Your task to perform on an android device: turn on location history Image 0: 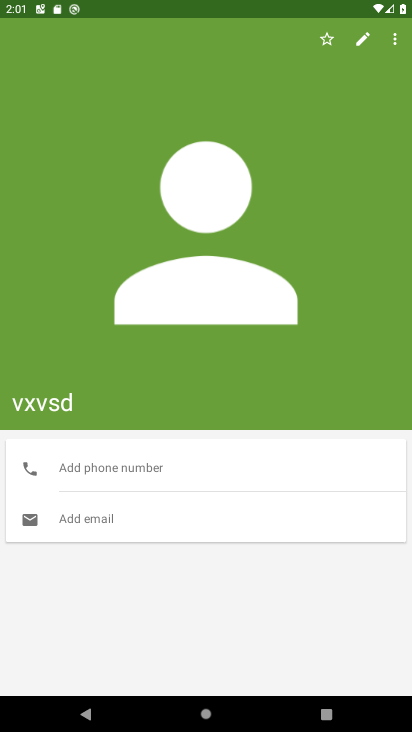
Step 0: press home button
Your task to perform on an android device: turn on location history Image 1: 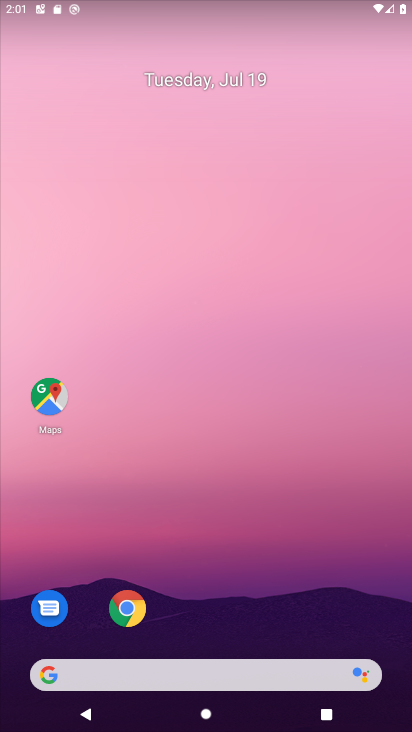
Step 1: drag from (225, 577) to (328, 91)
Your task to perform on an android device: turn on location history Image 2: 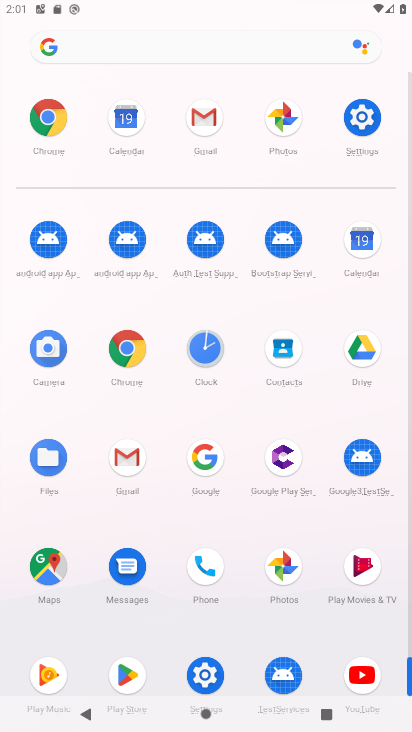
Step 2: click (203, 678)
Your task to perform on an android device: turn on location history Image 3: 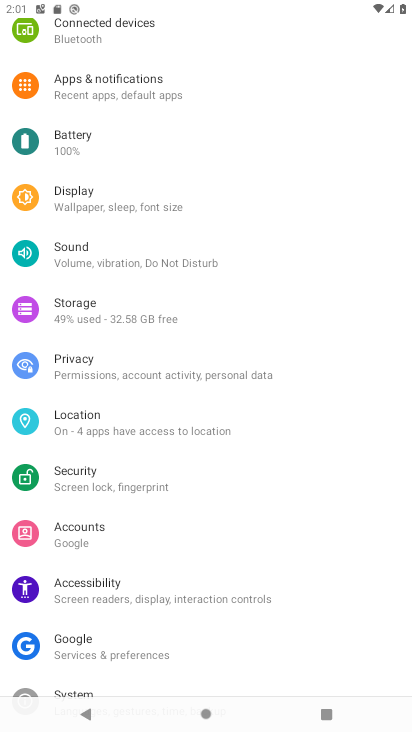
Step 3: click (91, 430)
Your task to perform on an android device: turn on location history Image 4: 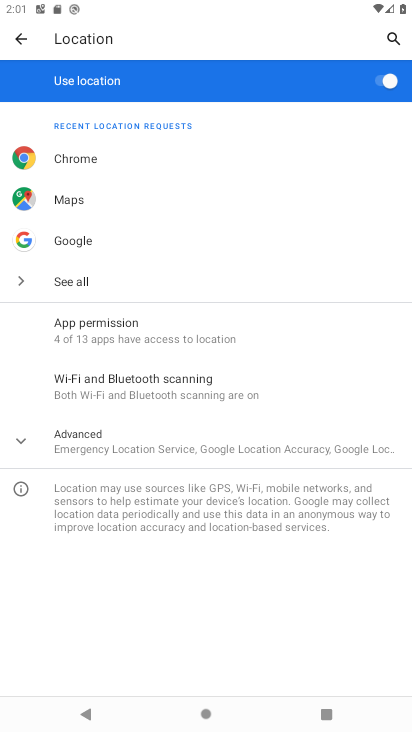
Step 4: click (87, 444)
Your task to perform on an android device: turn on location history Image 5: 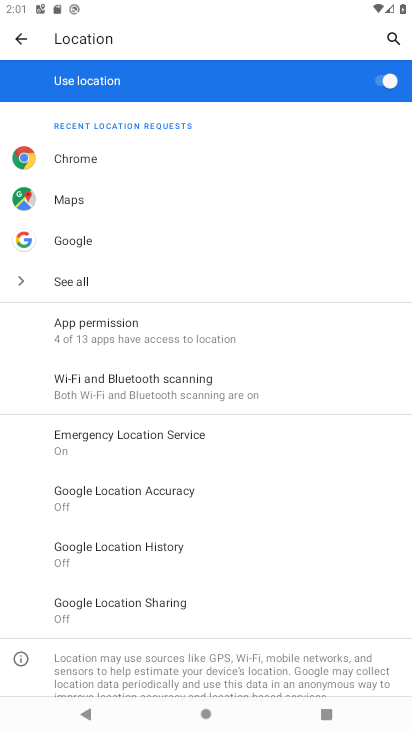
Step 5: click (128, 559)
Your task to perform on an android device: turn on location history Image 6: 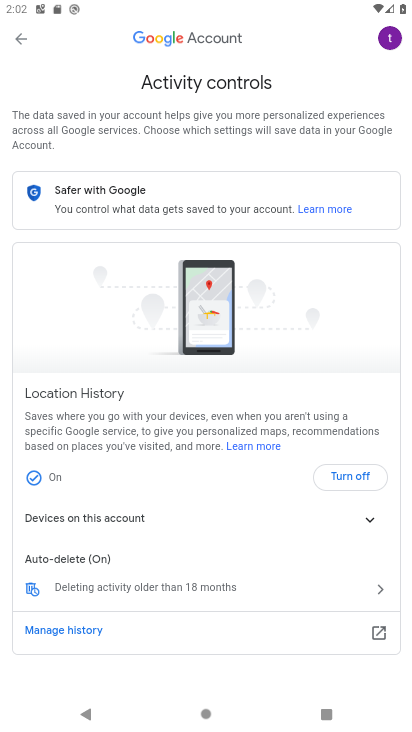
Step 6: click (346, 475)
Your task to perform on an android device: turn on location history Image 7: 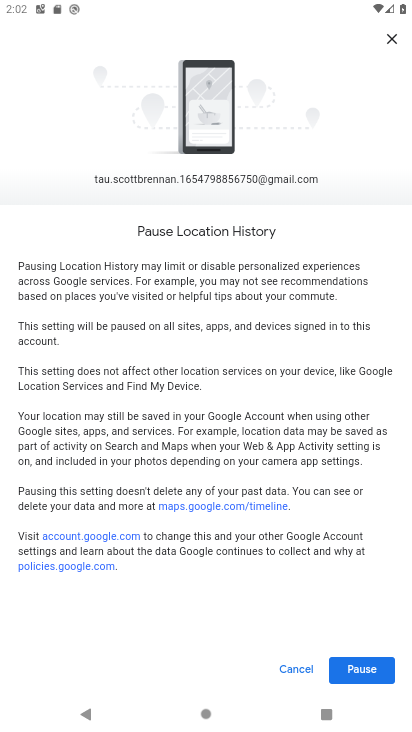
Step 7: drag from (323, 602) to (305, 281)
Your task to perform on an android device: turn on location history Image 8: 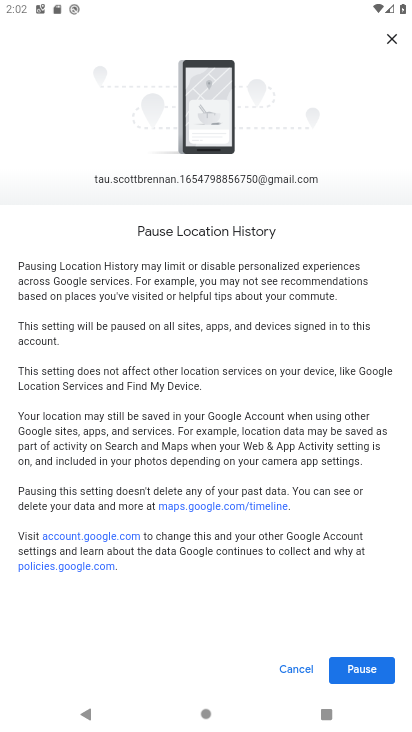
Step 8: click (365, 672)
Your task to perform on an android device: turn on location history Image 9: 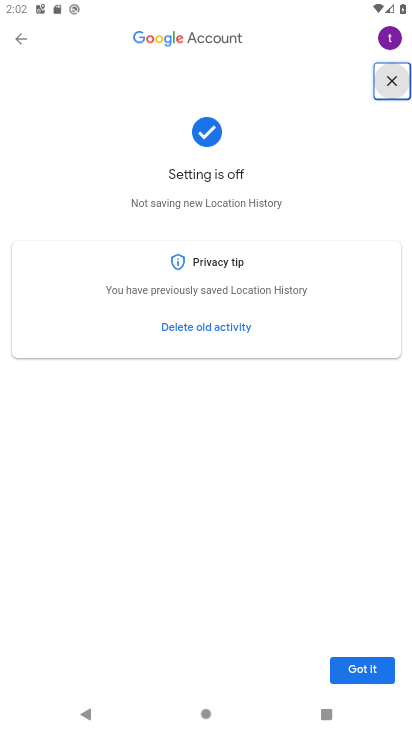
Step 9: click (346, 673)
Your task to perform on an android device: turn on location history Image 10: 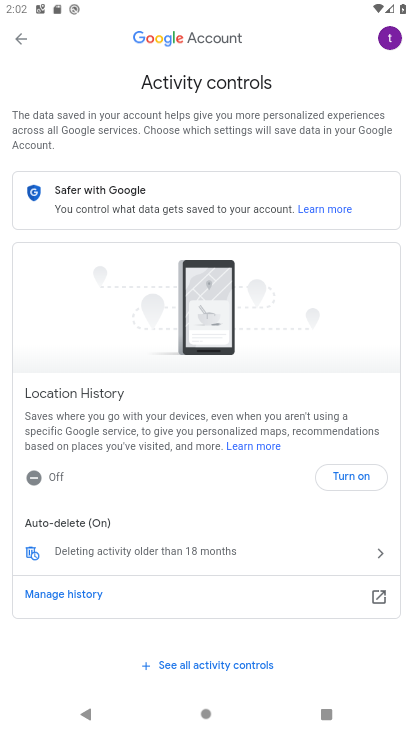
Step 10: click (335, 477)
Your task to perform on an android device: turn on location history Image 11: 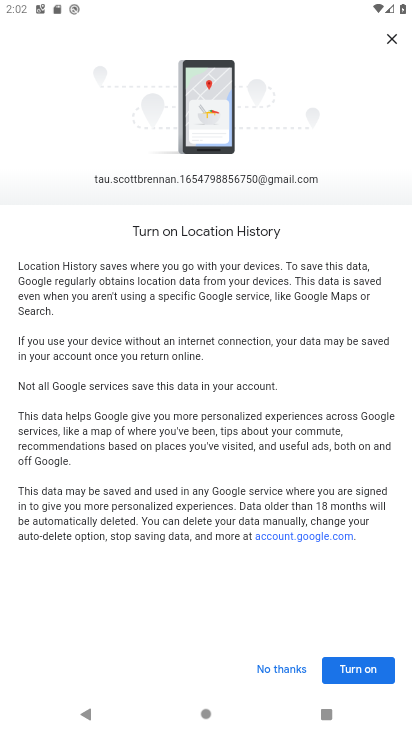
Step 11: click (352, 666)
Your task to perform on an android device: turn on location history Image 12: 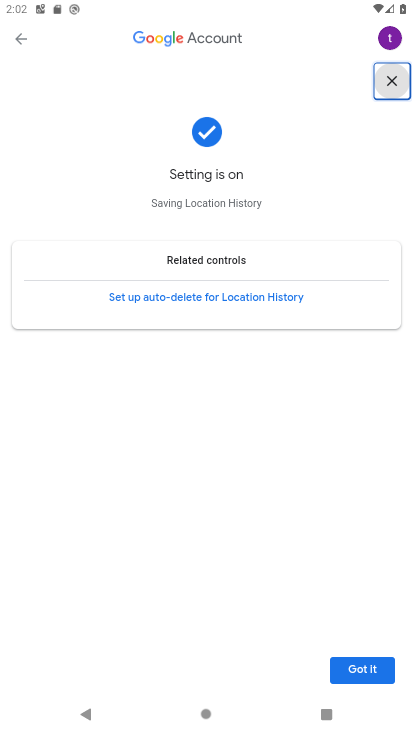
Step 12: click (344, 667)
Your task to perform on an android device: turn on location history Image 13: 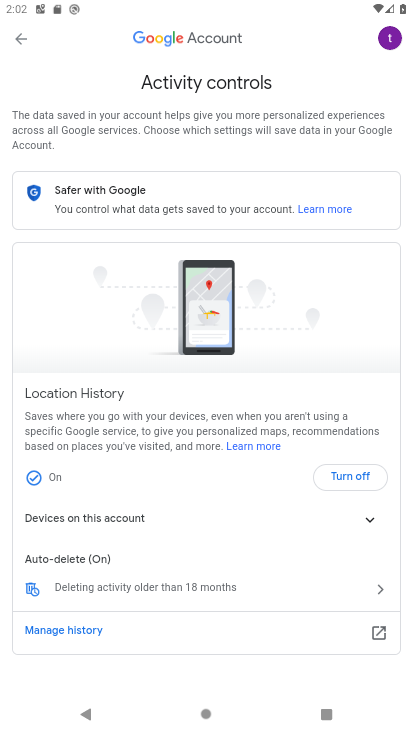
Step 13: task complete